Your task to perform on an android device: create a new album in the google photos Image 0: 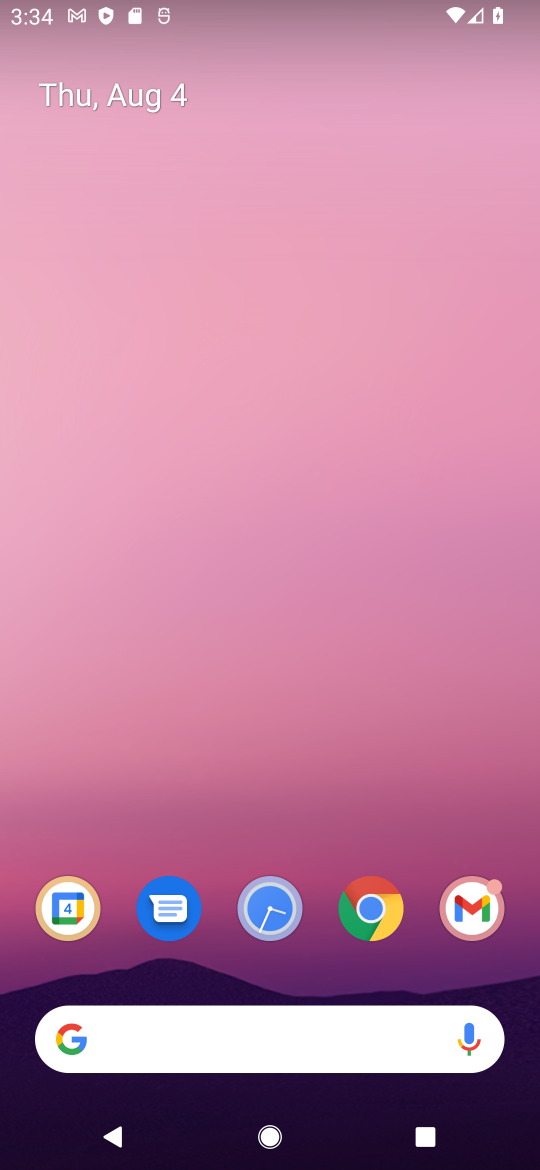
Step 0: drag from (272, 840) to (157, 194)
Your task to perform on an android device: create a new album in the google photos Image 1: 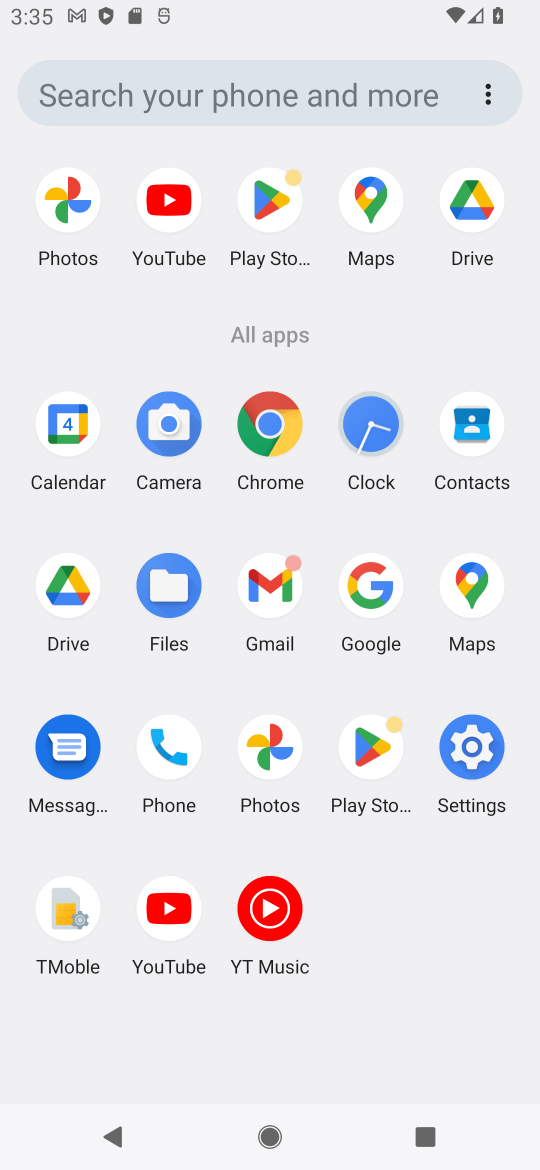
Step 1: click (63, 192)
Your task to perform on an android device: create a new album in the google photos Image 2: 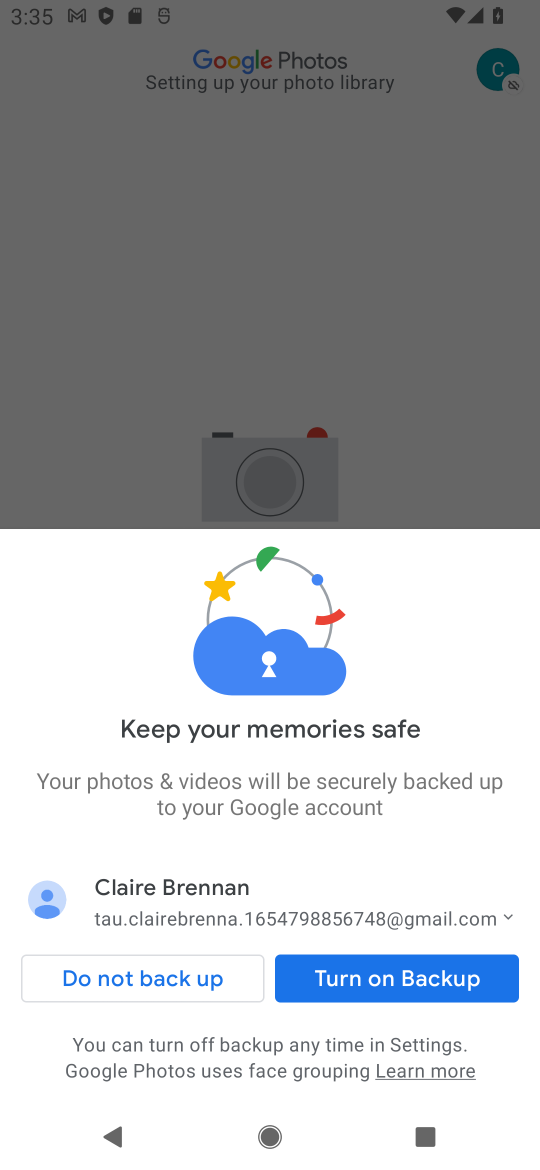
Step 2: click (415, 967)
Your task to perform on an android device: create a new album in the google photos Image 3: 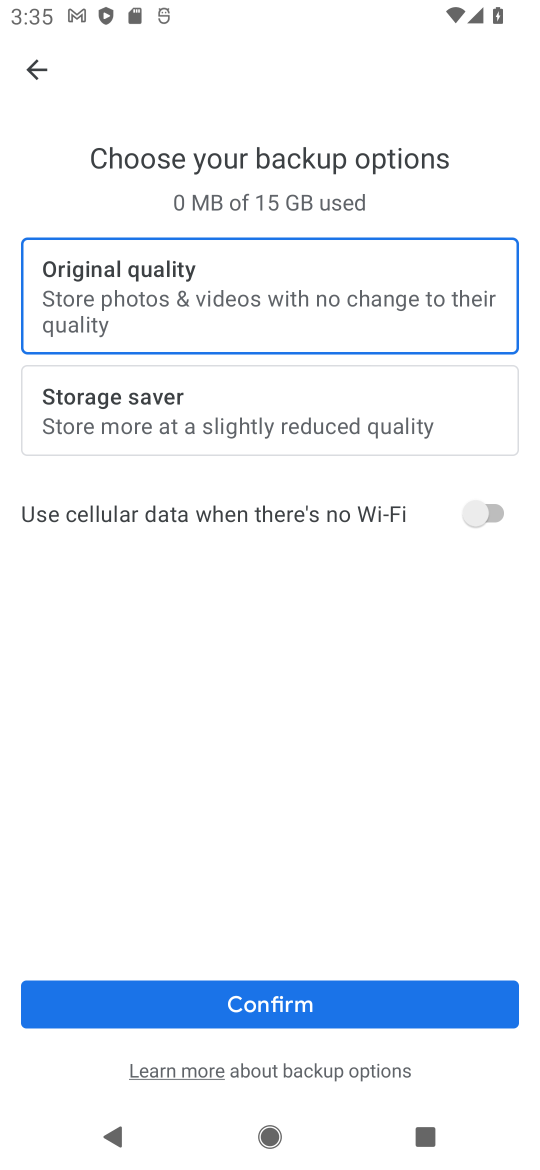
Step 3: click (391, 1008)
Your task to perform on an android device: create a new album in the google photos Image 4: 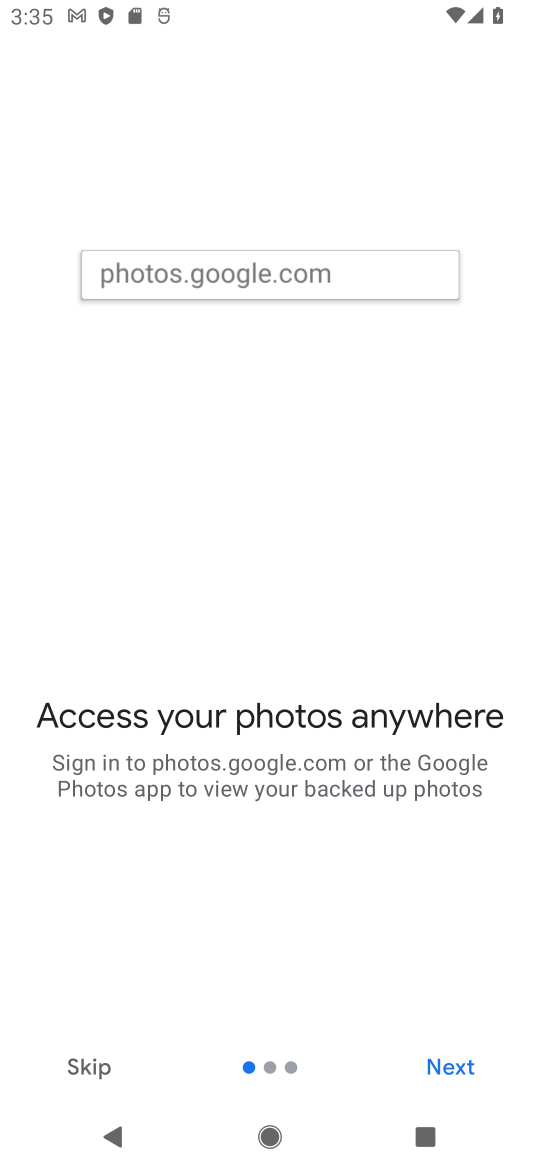
Step 4: click (95, 1080)
Your task to perform on an android device: create a new album in the google photos Image 5: 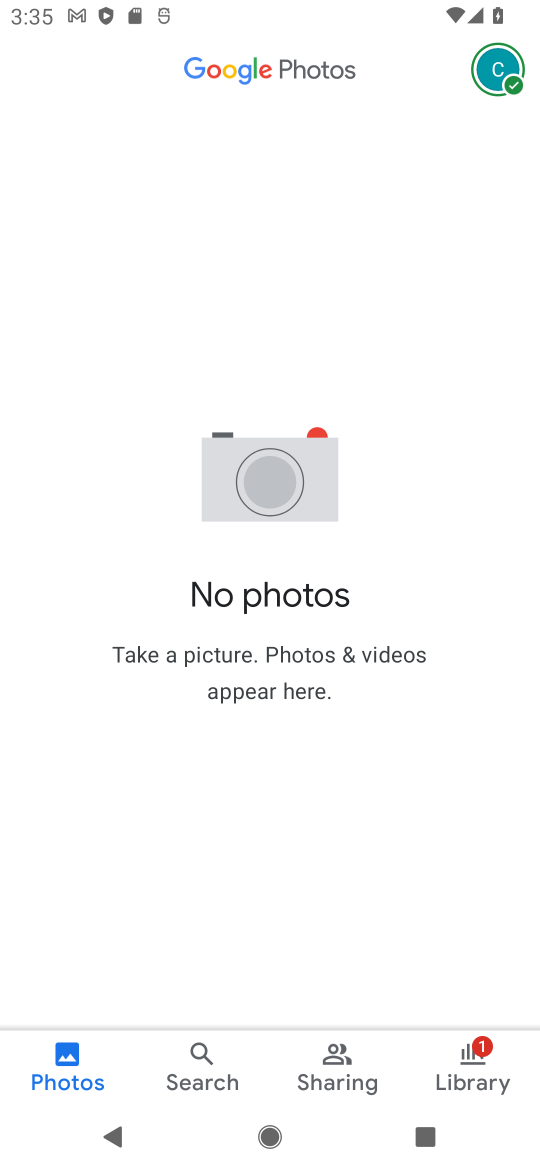
Step 5: click (471, 1069)
Your task to perform on an android device: create a new album in the google photos Image 6: 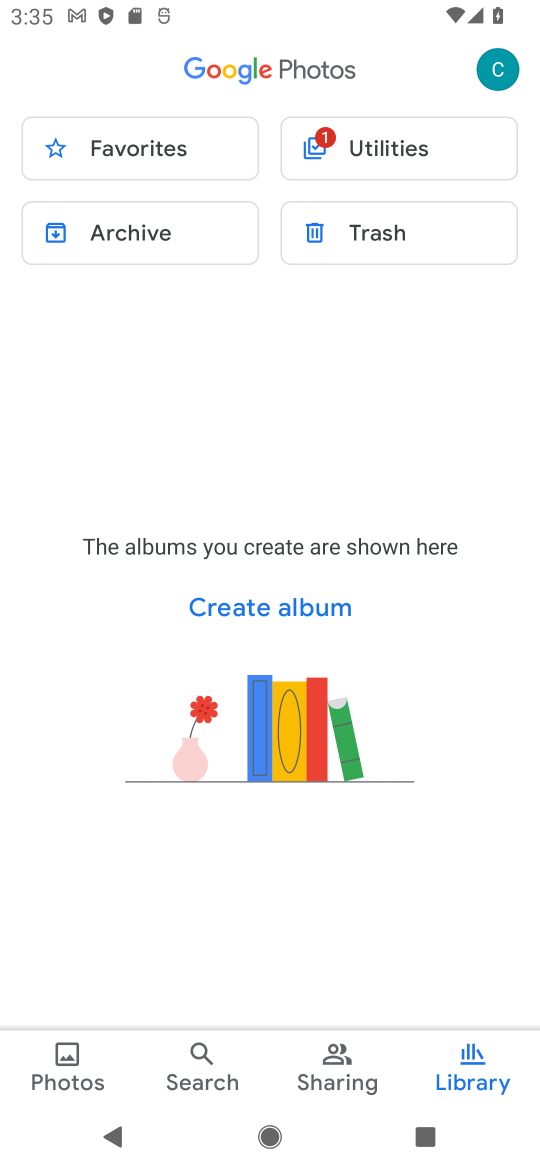
Step 6: click (230, 617)
Your task to perform on an android device: create a new album in the google photos Image 7: 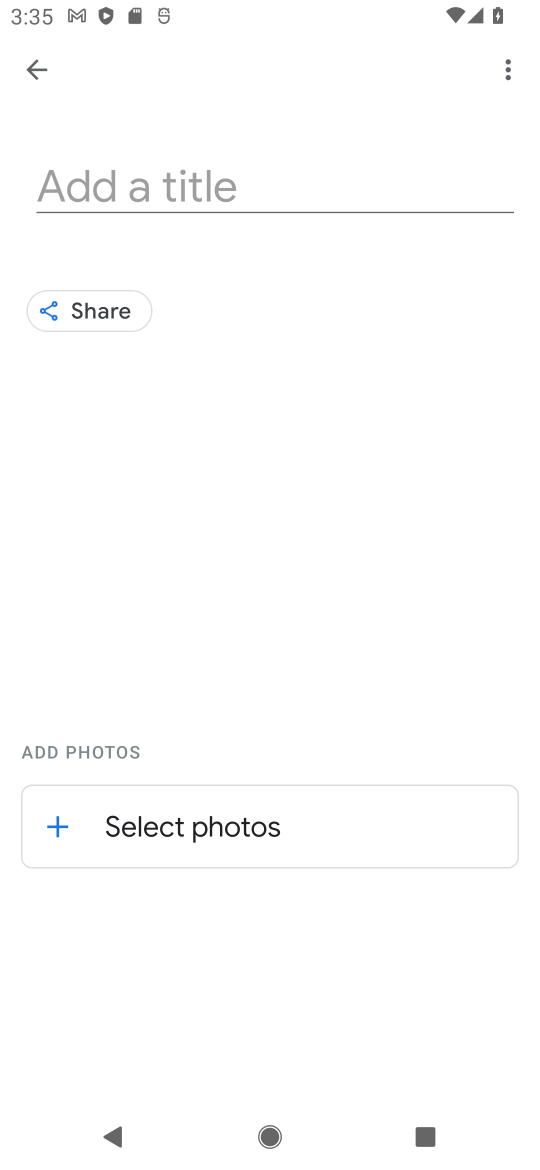
Step 7: click (180, 187)
Your task to perform on an android device: create a new album in the google photos Image 8: 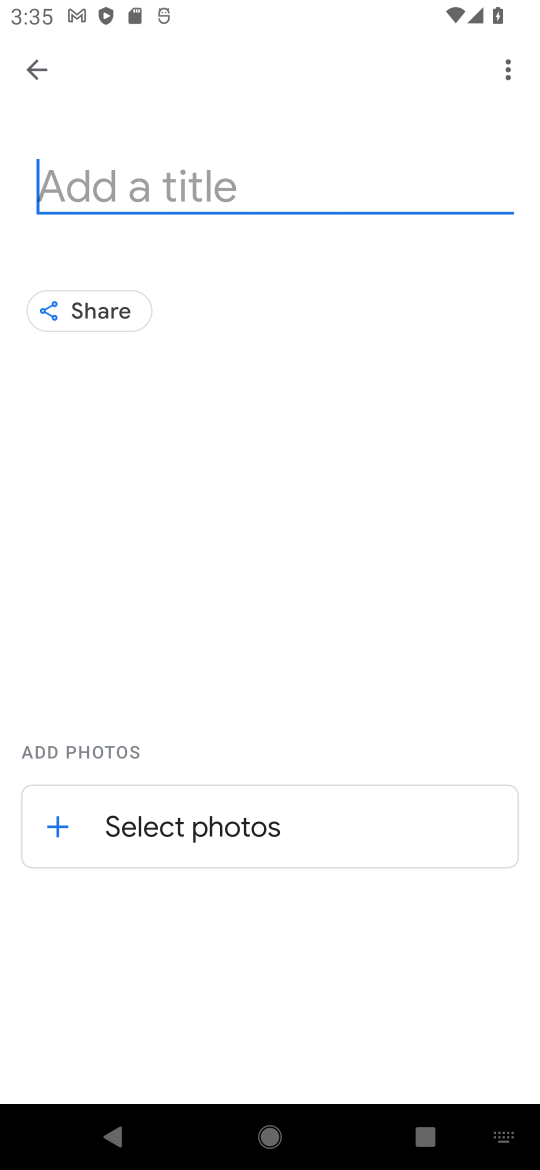
Step 8: type "bh"
Your task to perform on an android device: create a new album in the google photos Image 9: 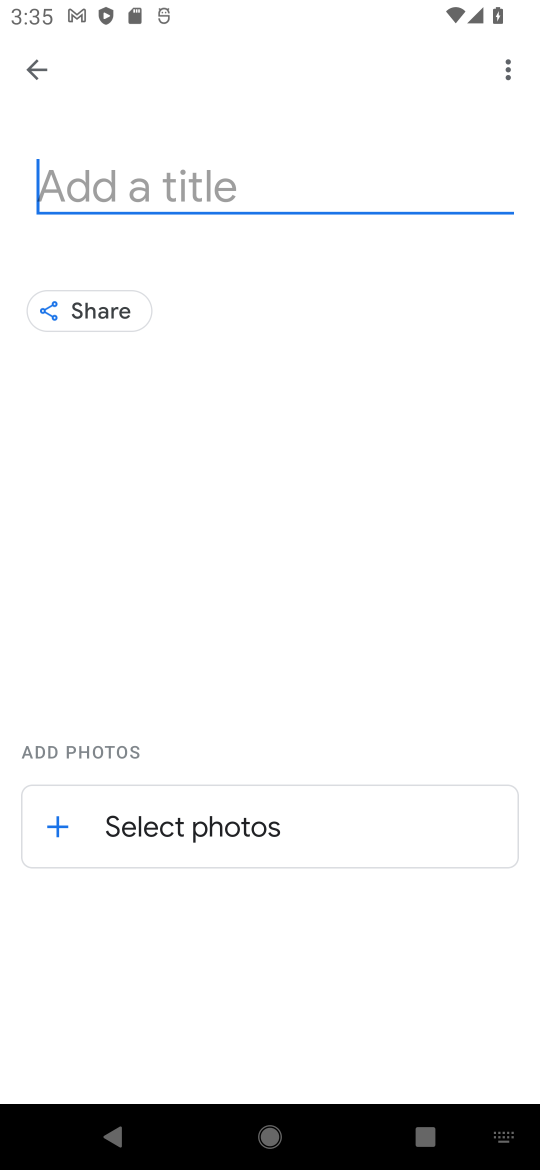
Step 9: click (360, 804)
Your task to perform on an android device: create a new album in the google photos Image 10: 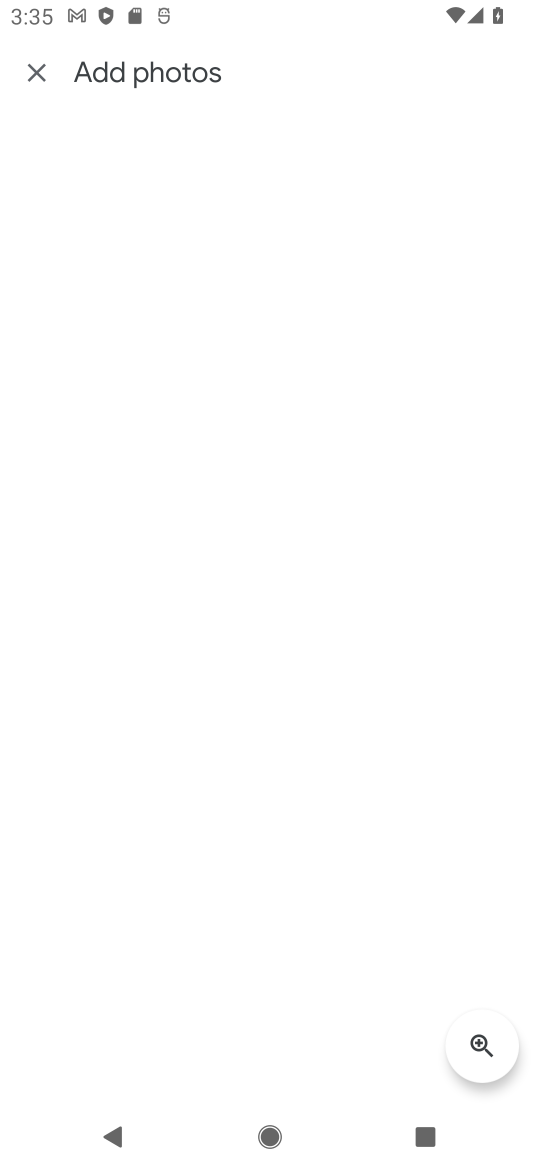
Step 10: task complete